Your task to perform on an android device: Check the news Image 0: 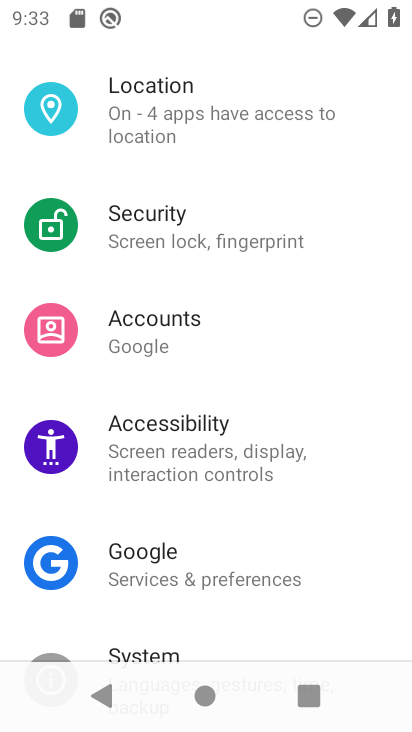
Step 0: press home button
Your task to perform on an android device: Check the news Image 1: 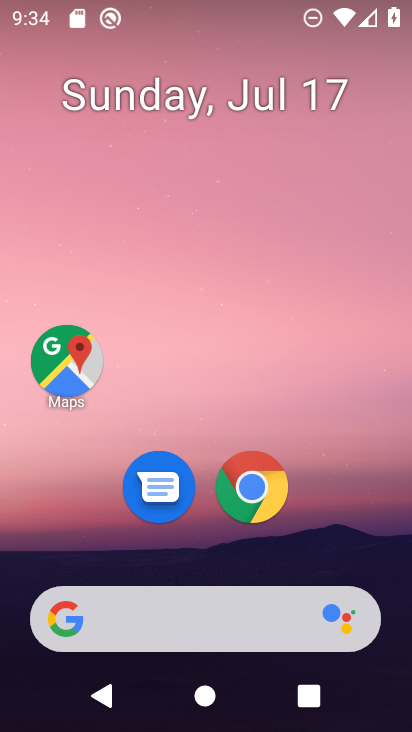
Step 1: click (89, 618)
Your task to perform on an android device: Check the news Image 2: 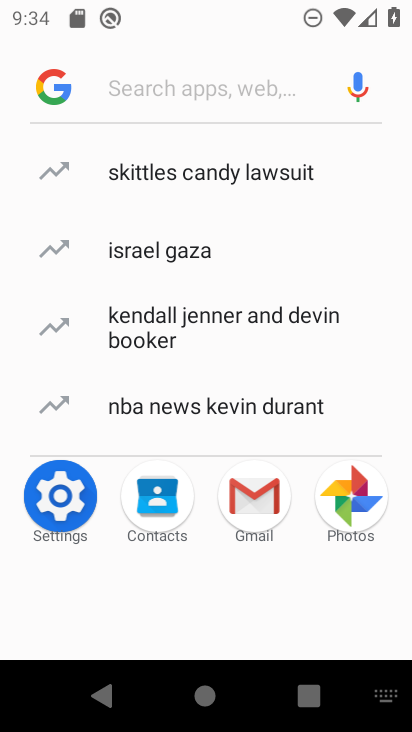
Step 2: type "news"
Your task to perform on an android device: Check the news Image 3: 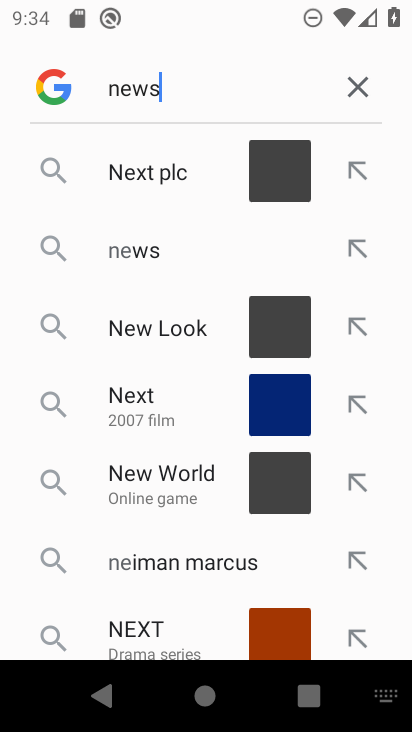
Step 3: press enter
Your task to perform on an android device: Check the news Image 4: 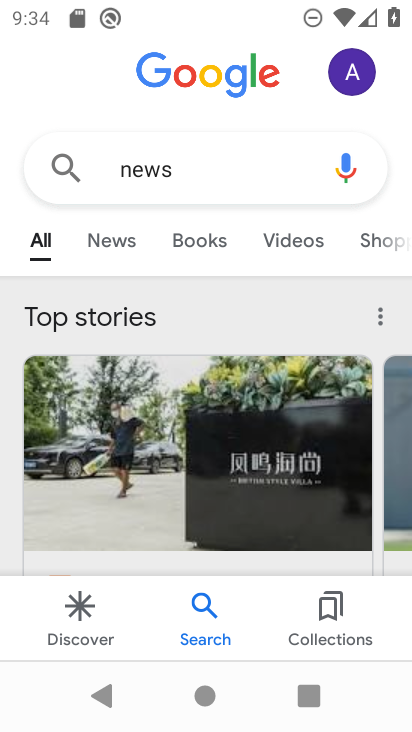
Step 4: task complete